Your task to perform on an android device: Open battery settings Image 0: 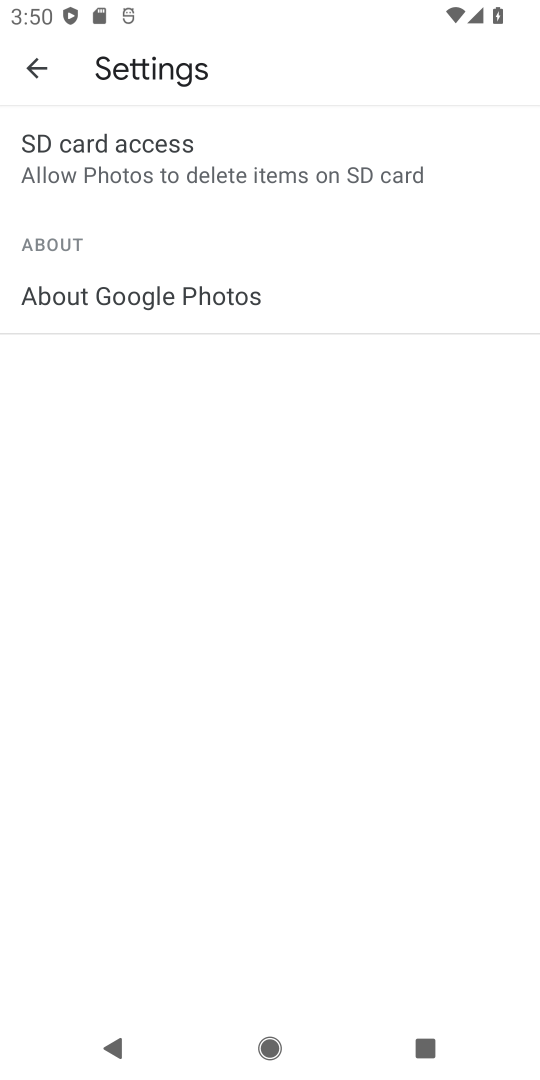
Step 0: press home button
Your task to perform on an android device: Open battery settings Image 1: 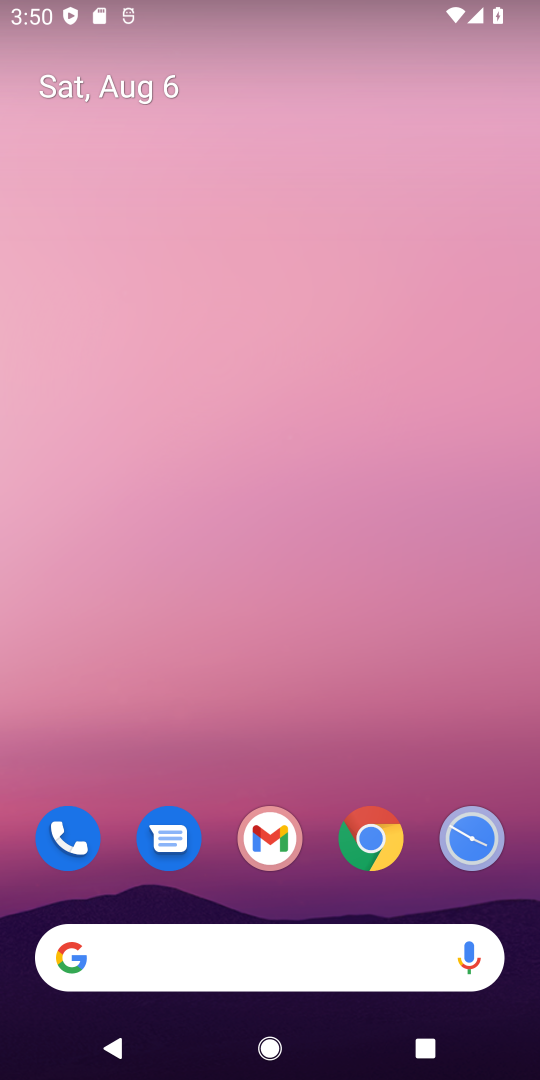
Step 1: drag from (213, 905) to (174, 554)
Your task to perform on an android device: Open battery settings Image 2: 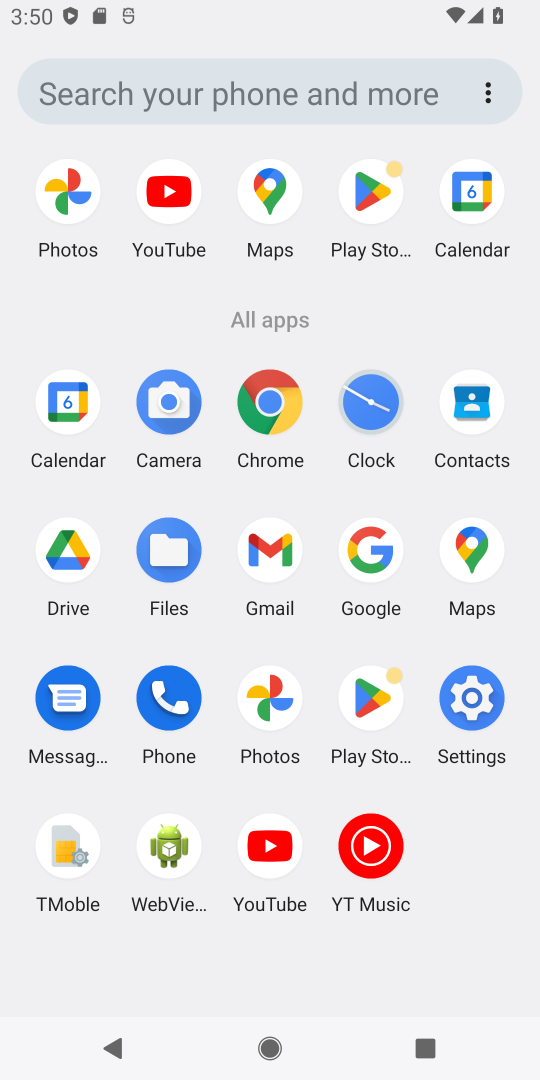
Step 2: click (479, 699)
Your task to perform on an android device: Open battery settings Image 3: 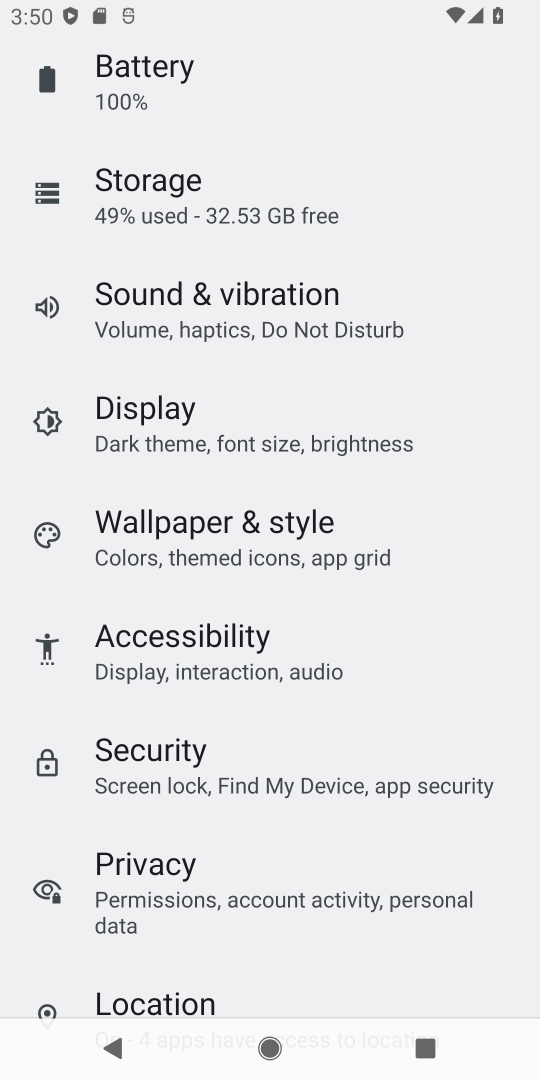
Step 3: click (163, 74)
Your task to perform on an android device: Open battery settings Image 4: 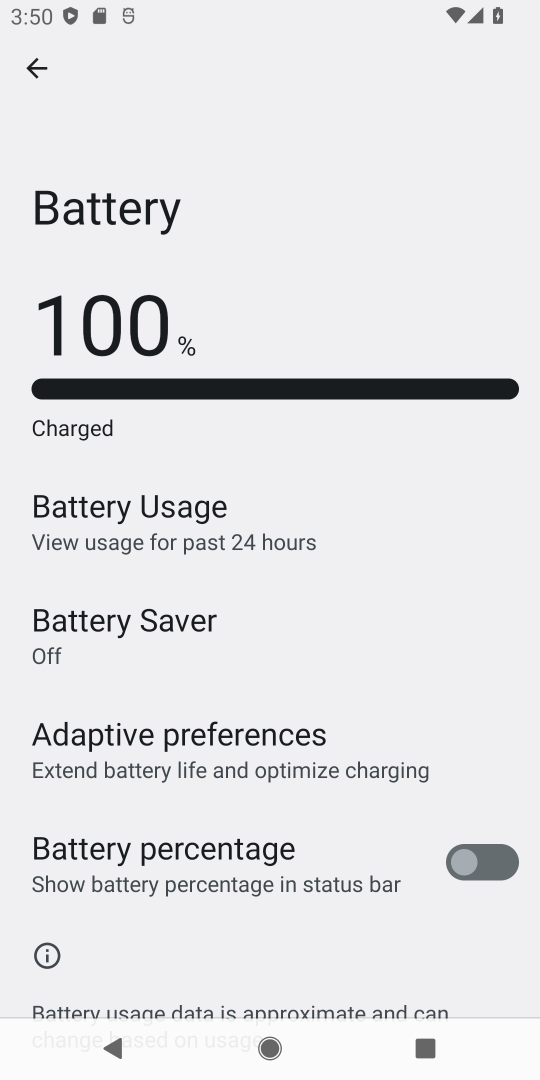
Step 4: task complete